Your task to perform on an android device: toggle notifications settings in the gmail app Image 0: 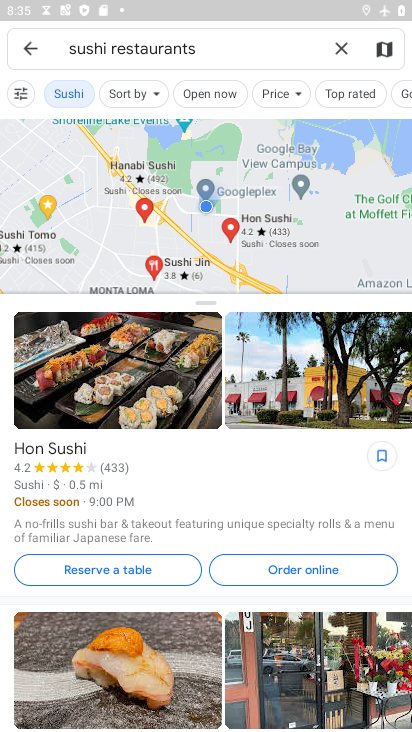
Step 0: press home button
Your task to perform on an android device: toggle notifications settings in the gmail app Image 1: 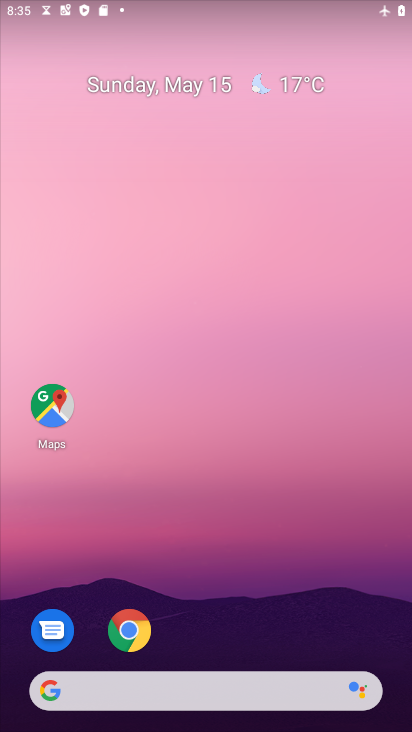
Step 1: drag from (293, 604) to (410, 73)
Your task to perform on an android device: toggle notifications settings in the gmail app Image 2: 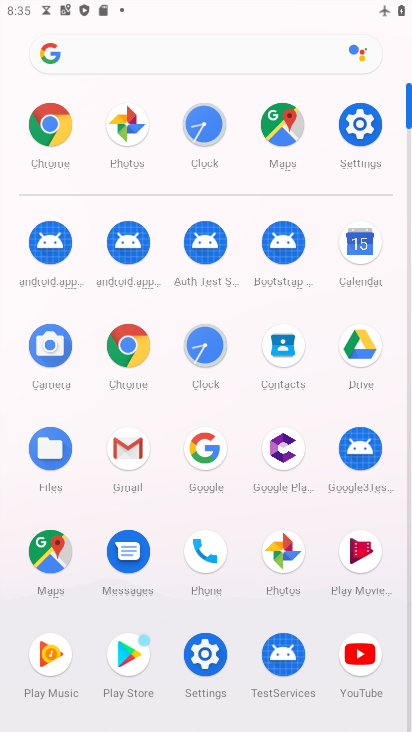
Step 2: click (123, 455)
Your task to perform on an android device: toggle notifications settings in the gmail app Image 3: 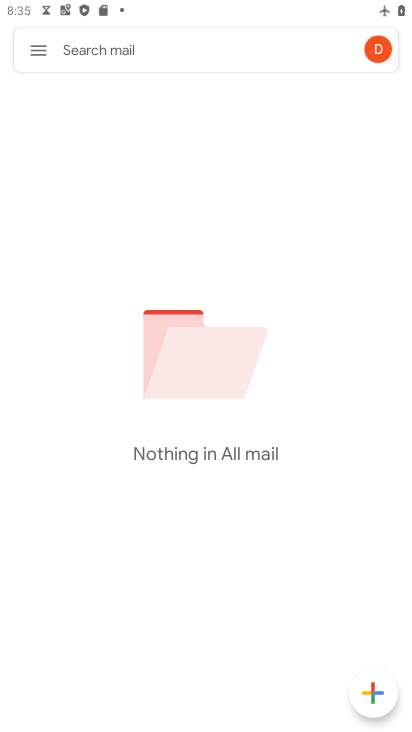
Step 3: click (46, 65)
Your task to perform on an android device: toggle notifications settings in the gmail app Image 4: 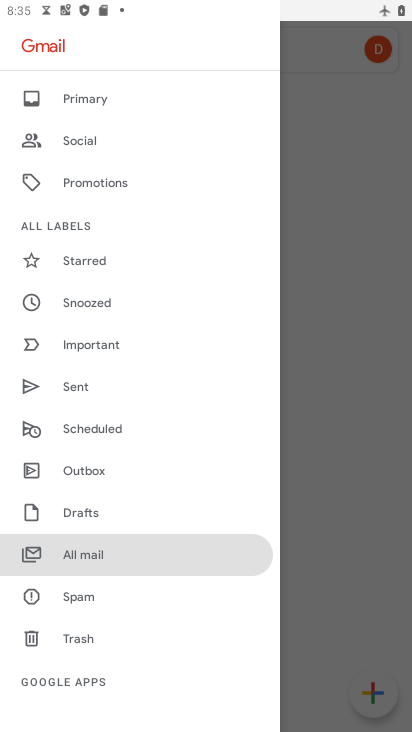
Step 4: drag from (111, 604) to (216, 127)
Your task to perform on an android device: toggle notifications settings in the gmail app Image 5: 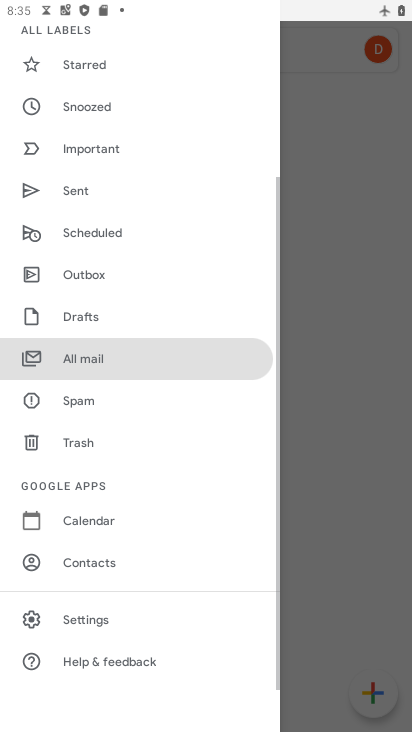
Step 5: click (100, 625)
Your task to perform on an android device: toggle notifications settings in the gmail app Image 6: 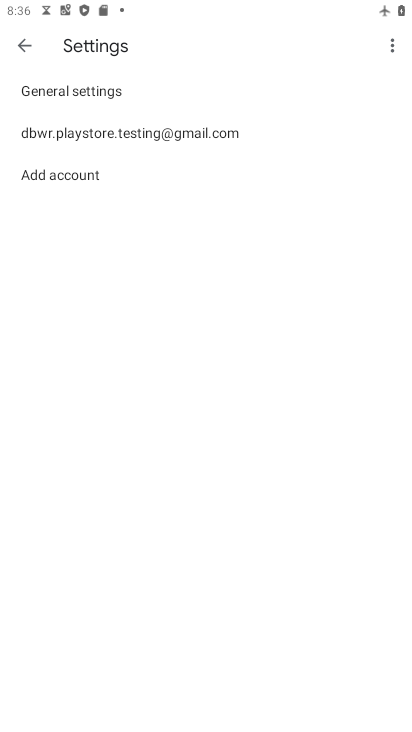
Step 6: click (68, 130)
Your task to perform on an android device: toggle notifications settings in the gmail app Image 7: 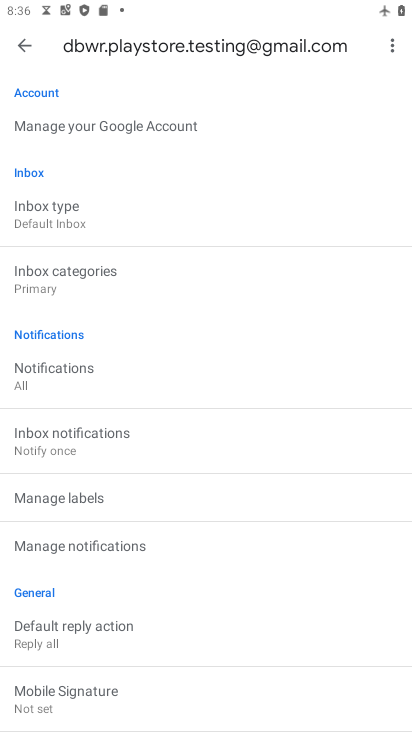
Step 7: click (25, 394)
Your task to perform on an android device: toggle notifications settings in the gmail app Image 8: 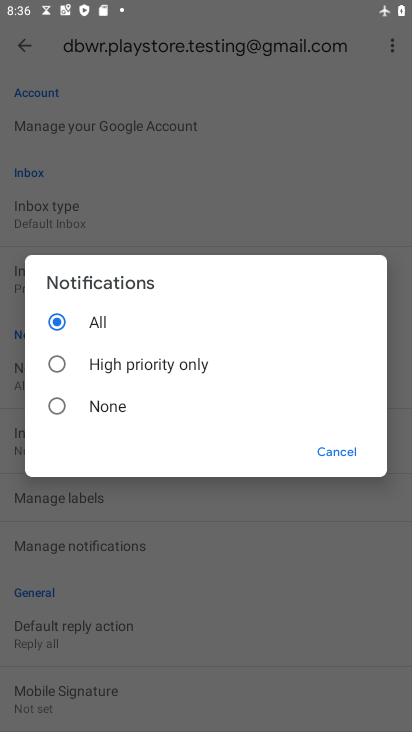
Step 8: click (60, 372)
Your task to perform on an android device: toggle notifications settings in the gmail app Image 9: 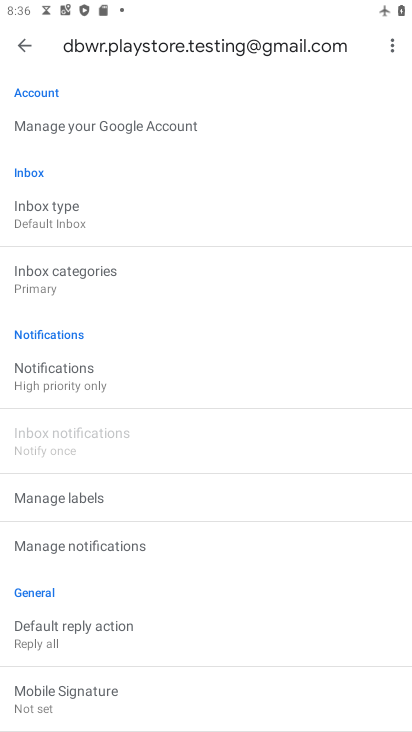
Step 9: press home button
Your task to perform on an android device: toggle notifications settings in the gmail app Image 10: 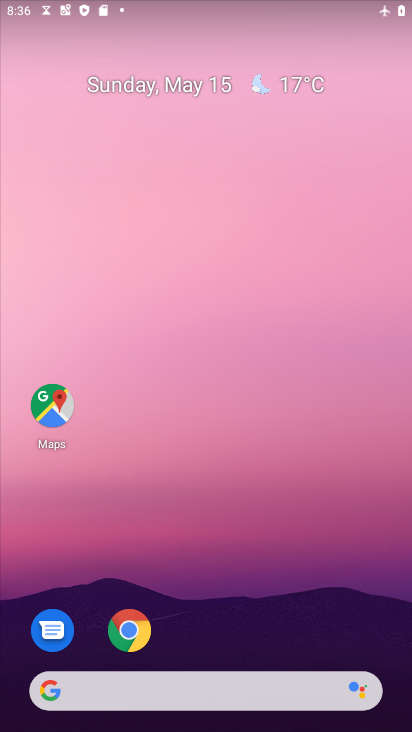
Step 10: drag from (251, 574) to (17, 388)
Your task to perform on an android device: toggle notifications settings in the gmail app Image 11: 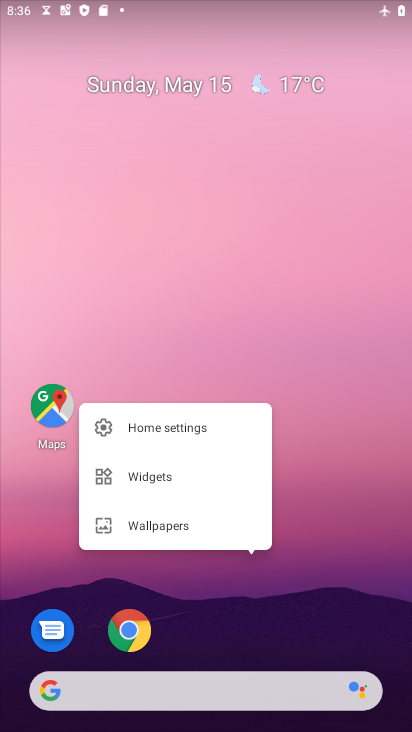
Step 11: click (297, 577)
Your task to perform on an android device: toggle notifications settings in the gmail app Image 12: 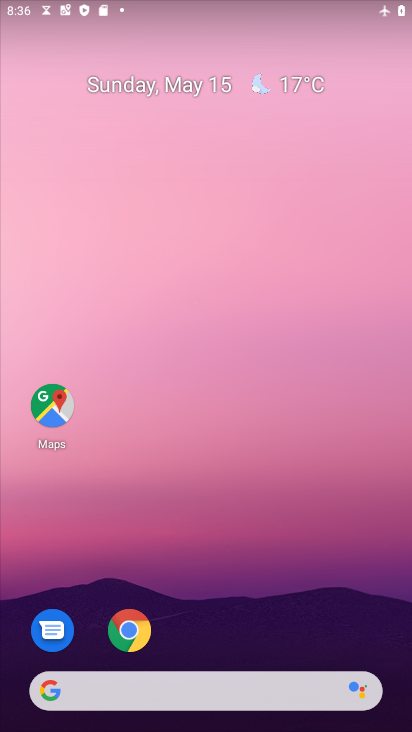
Step 12: drag from (358, 291) to (379, 130)
Your task to perform on an android device: toggle notifications settings in the gmail app Image 13: 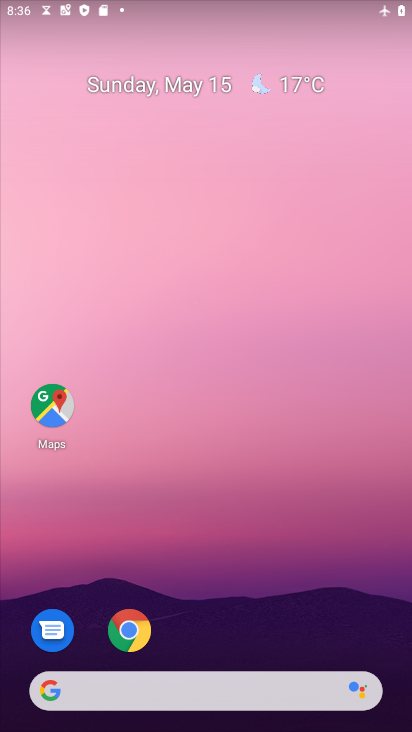
Step 13: drag from (237, 608) to (302, 81)
Your task to perform on an android device: toggle notifications settings in the gmail app Image 14: 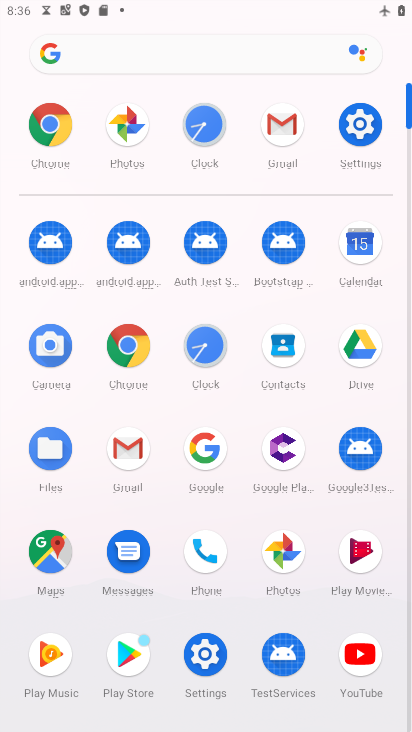
Step 14: click (281, 117)
Your task to perform on an android device: toggle notifications settings in the gmail app Image 15: 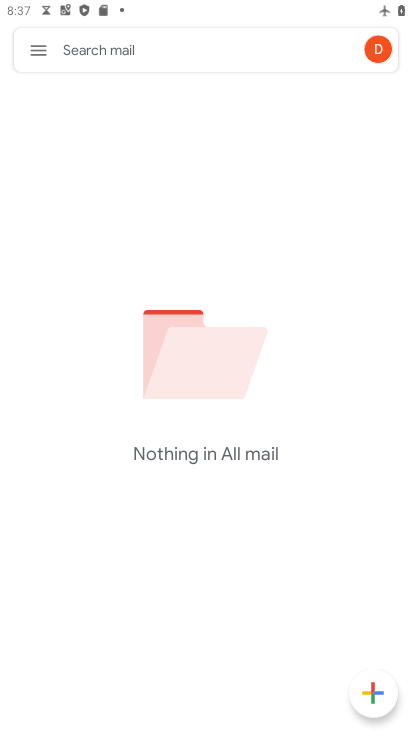
Step 15: click (38, 60)
Your task to perform on an android device: toggle notifications settings in the gmail app Image 16: 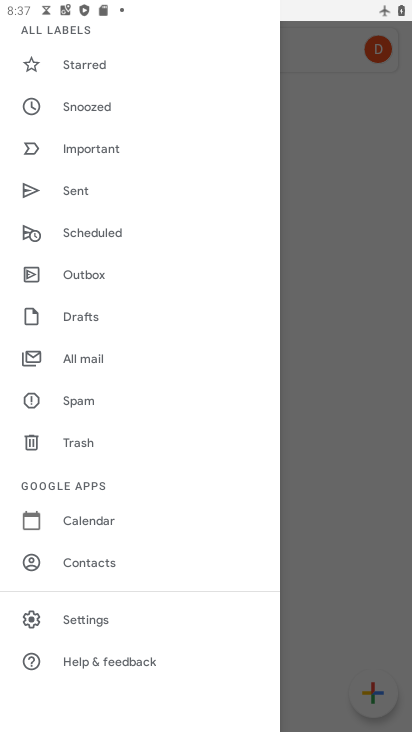
Step 16: click (55, 625)
Your task to perform on an android device: toggle notifications settings in the gmail app Image 17: 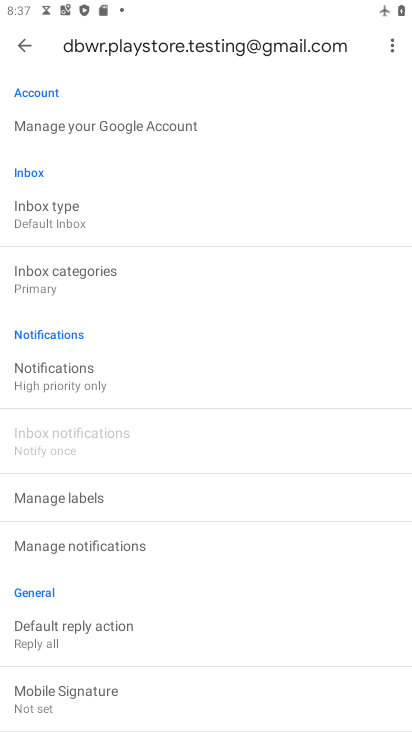
Step 17: task complete